Your task to perform on an android device: turn on javascript in the chrome app Image 0: 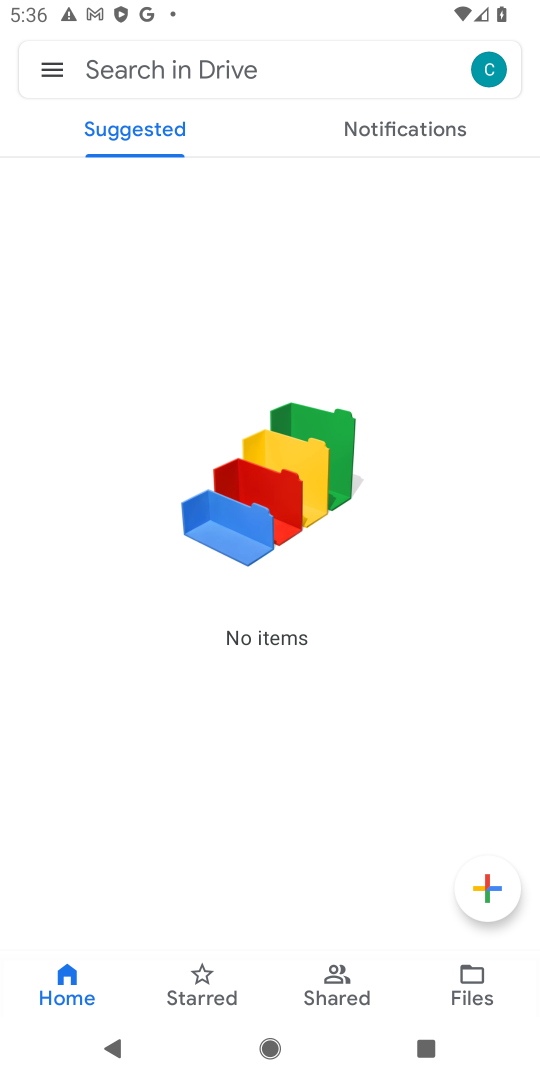
Step 0: press home button
Your task to perform on an android device: turn on javascript in the chrome app Image 1: 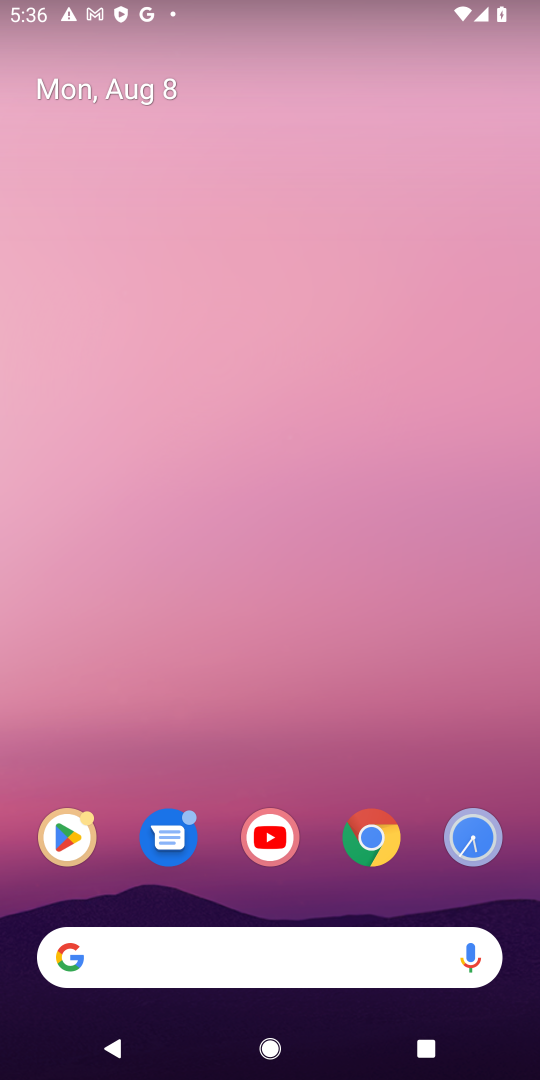
Step 1: drag from (226, 548) to (182, 22)
Your task to perform on an android device: turn on javascript in the chrome app Image 2: 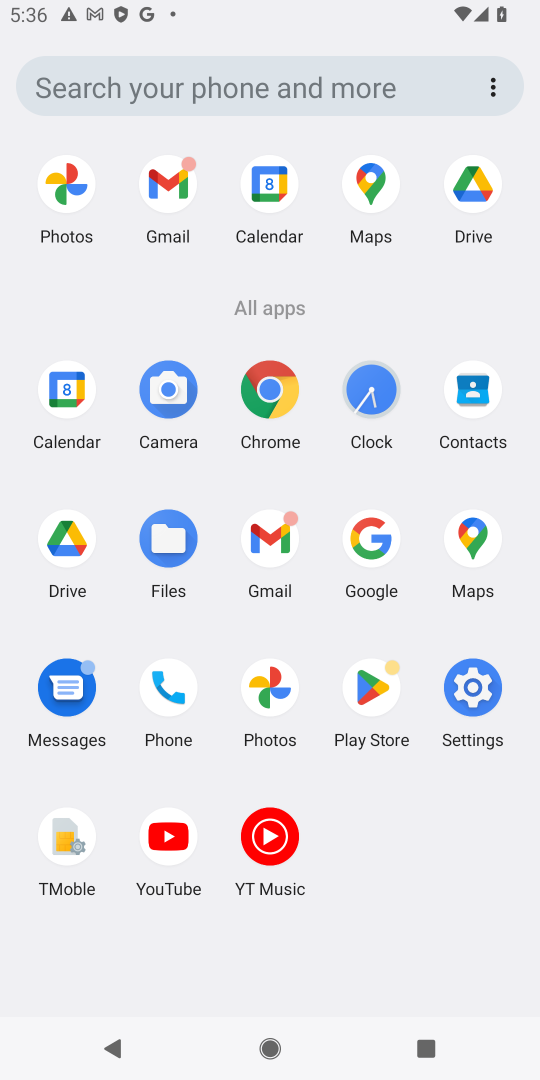
Step 2: click (248, 408)
Your task to perform on an android device: turn on javascript in the chrome app Image 3: 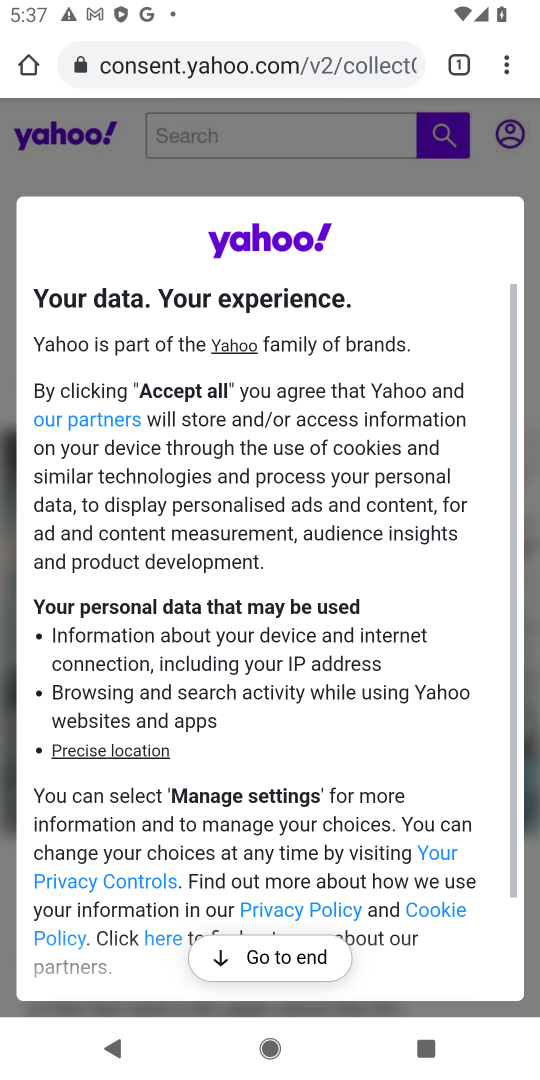
Step 3: drag from (513, 61) to (346, 799)
Your task to perform on an android device: turn on javascript in the chrome app Image 4: 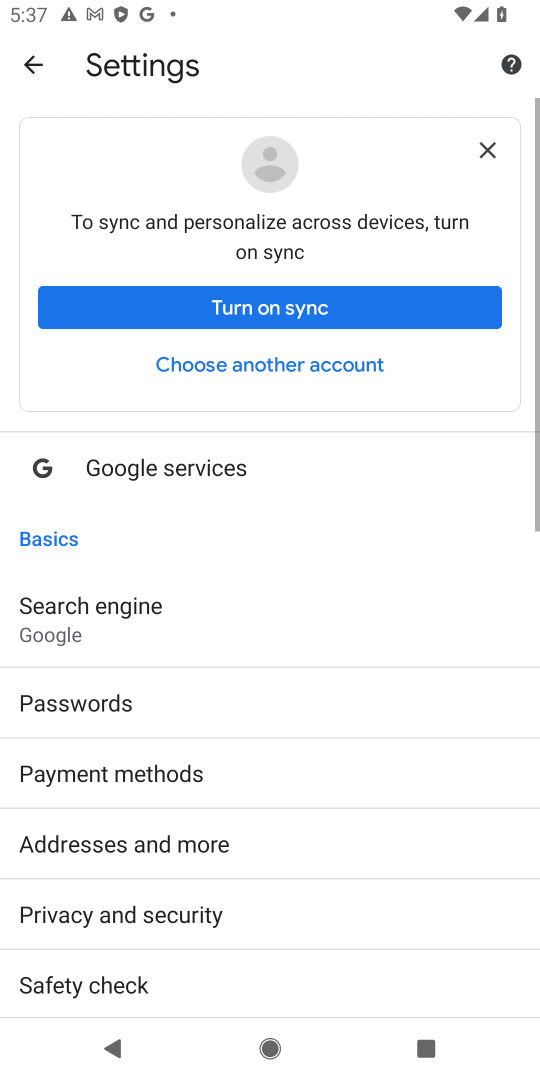
Step 4: drag from (189, 955) to (324, 242)
Your task to perform on an android device: turn on javascript in the chrome app Image 5: 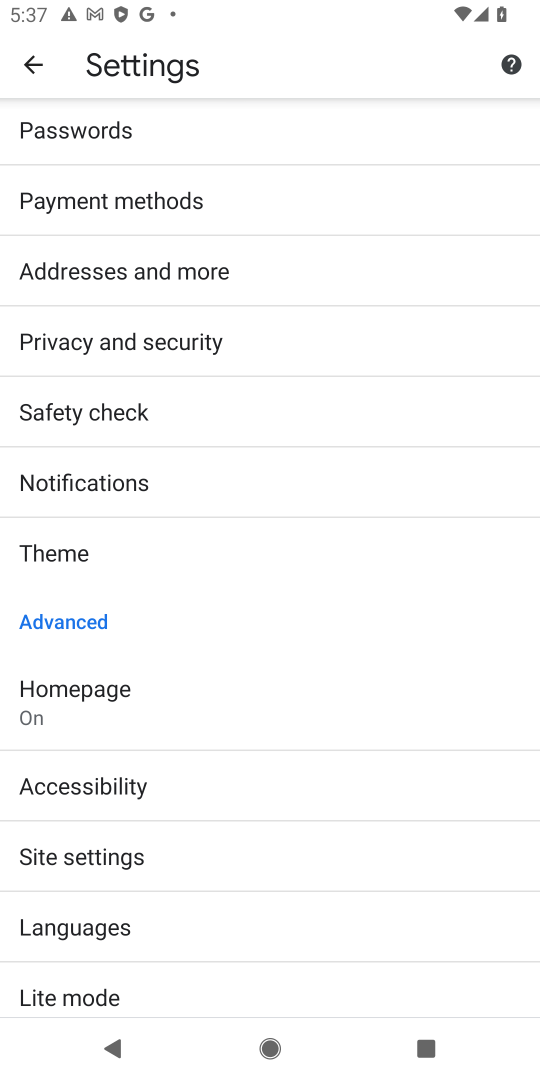
Step 5: click (101, 860)
Your task to perform on an android device: turn on javascript in the chrome app Image 6: 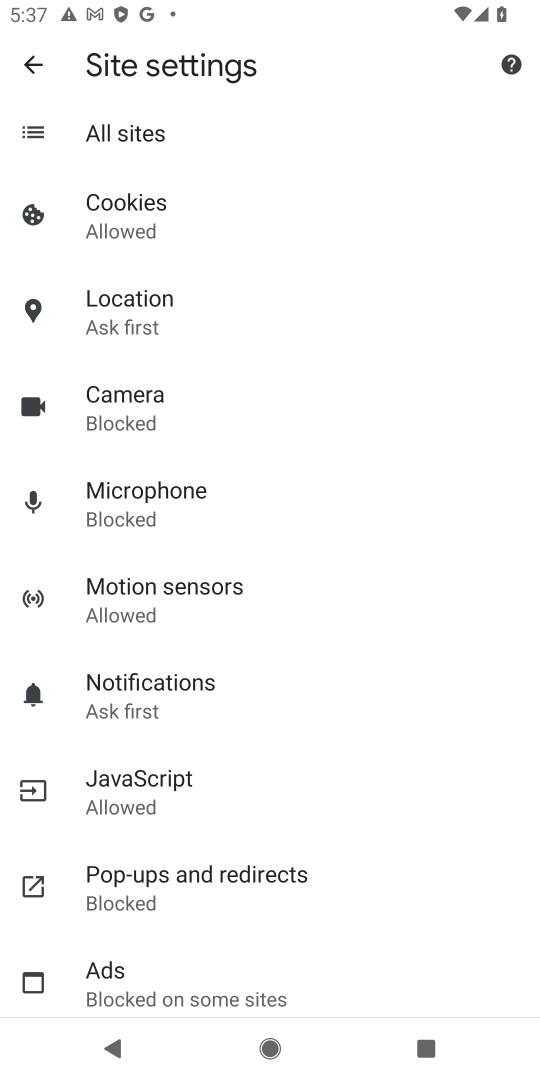
Step 6: click (139, 753)
Your task to perform on an android device: turn on javascript in the chrome app Image 7: 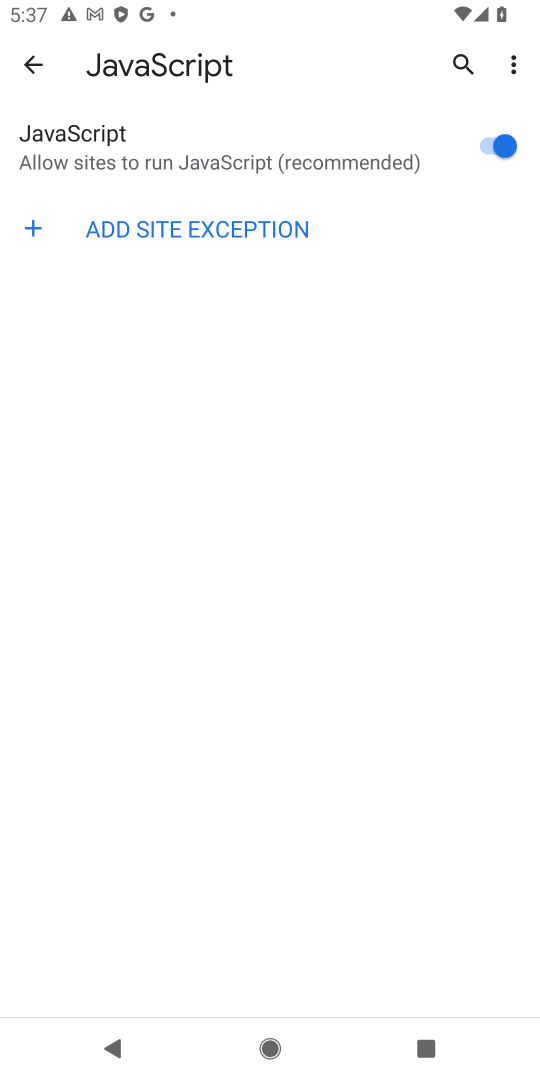
Step 7: task complete